Your task to perform on an android device: open app "LinkedIn" (install if not already installed) Image 0: 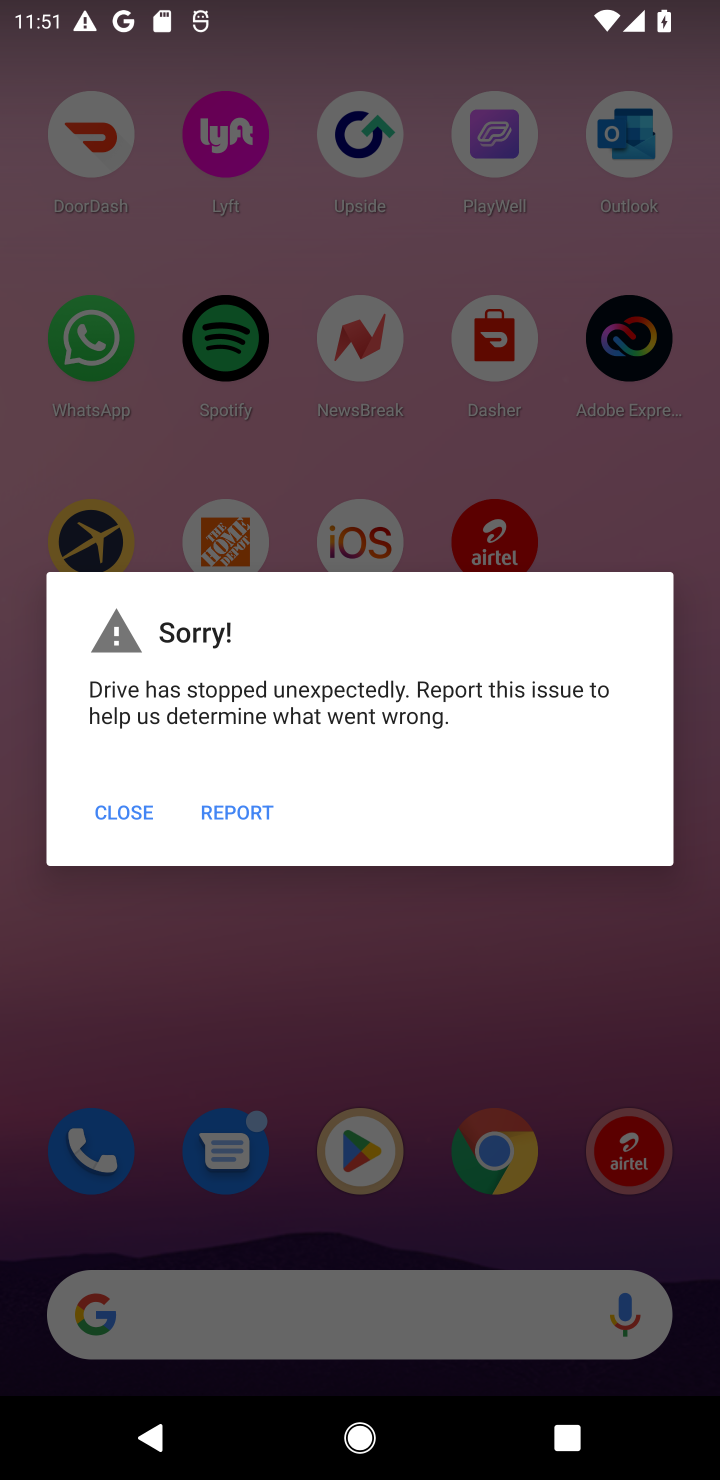
Step 0: click (94, 823)
Your task to perform on an android device: open app "LinkedIn" (install if not already installed) Image 1: 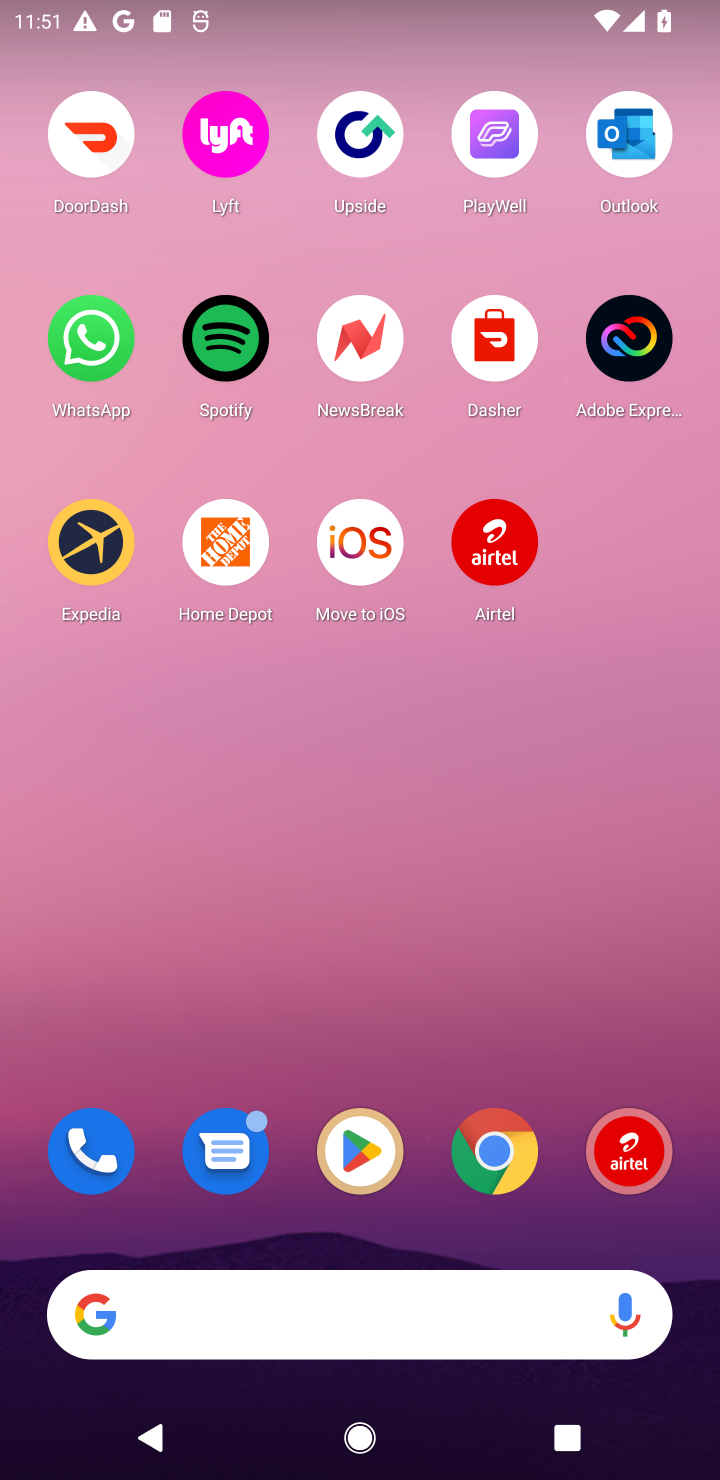
Step 1: click (366, 1145)
Your task to perform on an android device: open app "LinkedIn" (install if not already installed) Image 2: 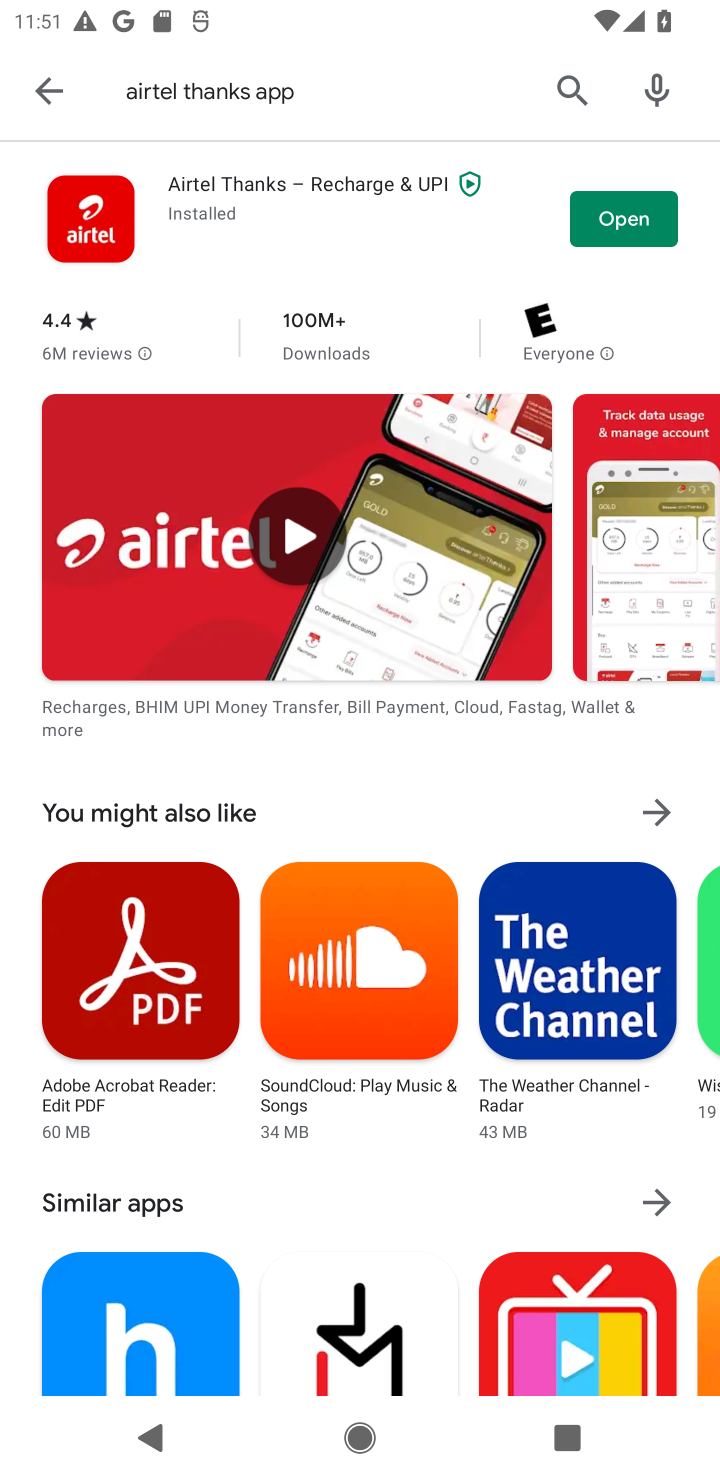
Step 2: click (578, 101)
Your task to perform on an android device: open app "LinkedIn" (install if not already installed) Image 3: 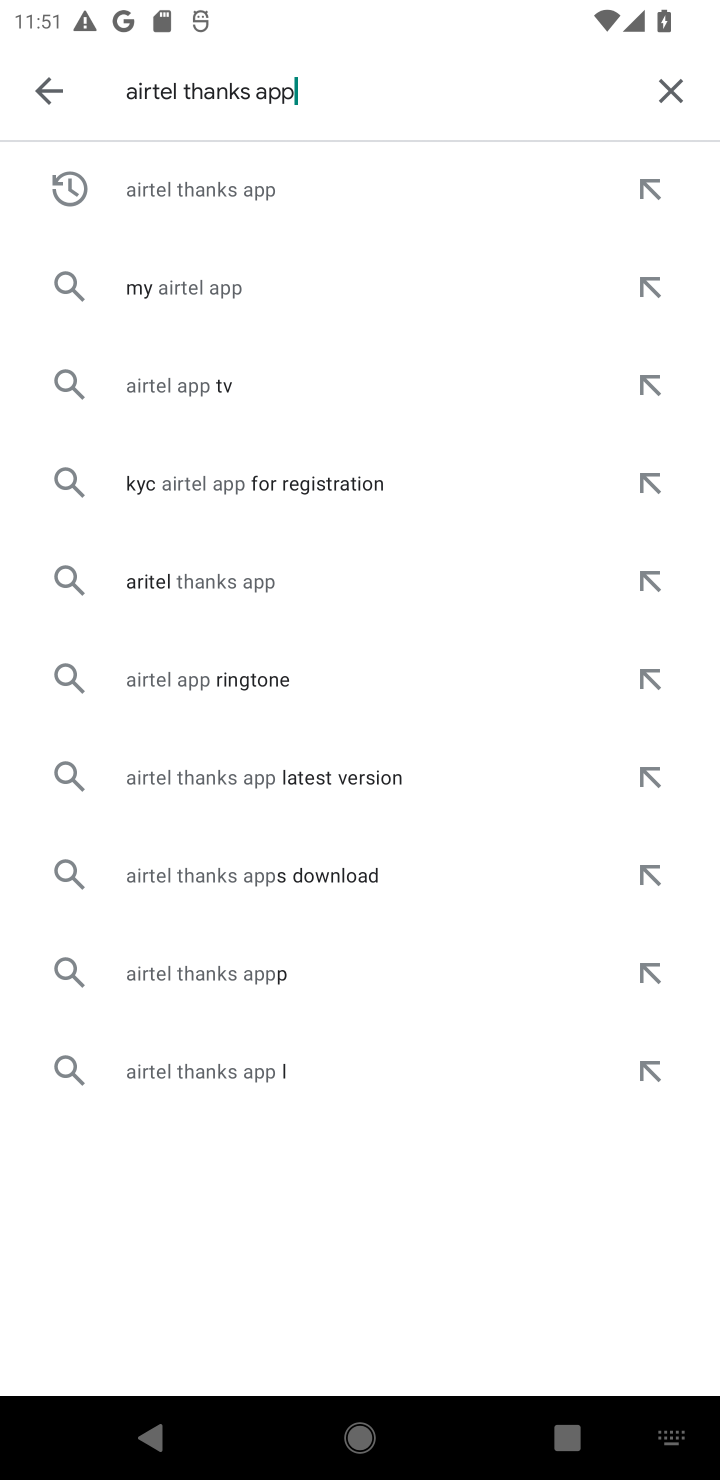
Step 3: click (676, 89)
Your task to perform on an android device: open app "LinkedIn" (install if not already installed) Image 4: 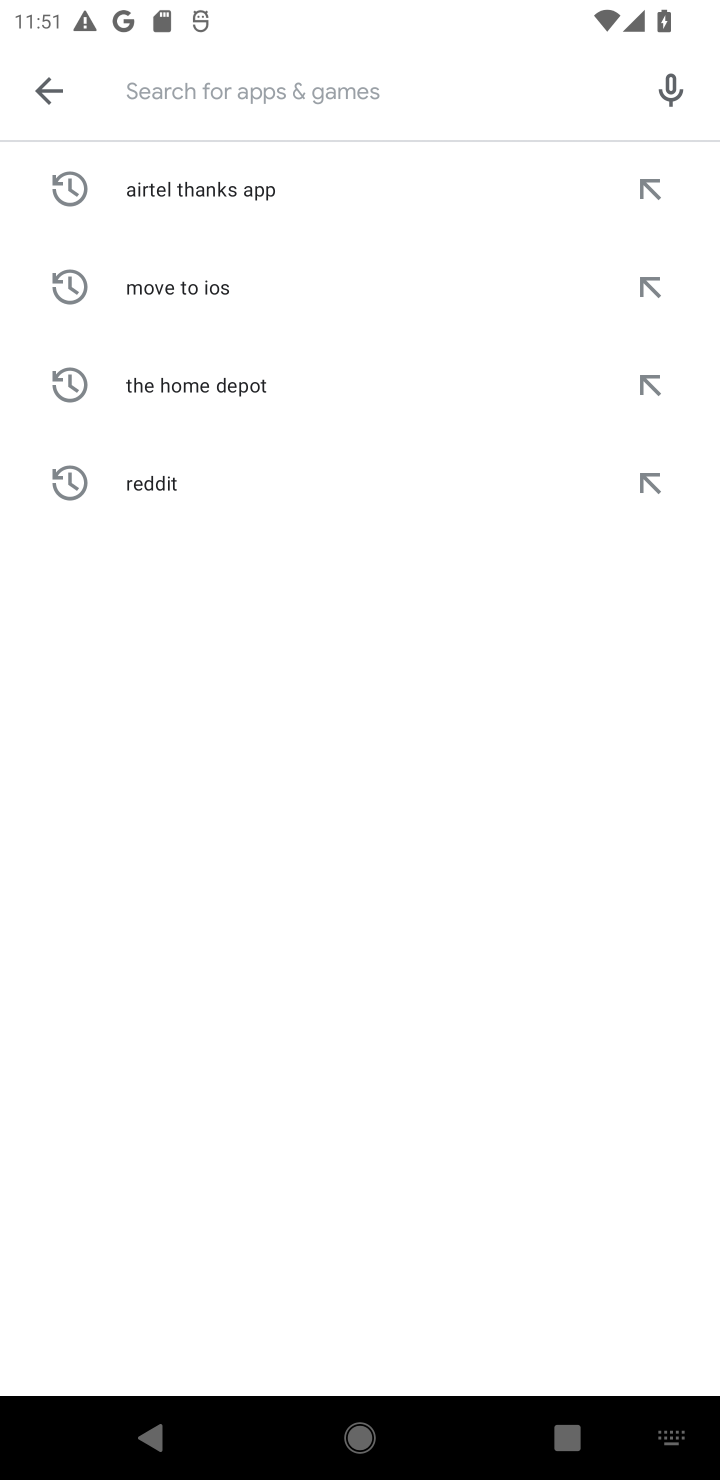
Step 4: type "LinkedIn"
Your task to perform on an android device: open app "LinkedIn" (install if not already installed) Image 5: 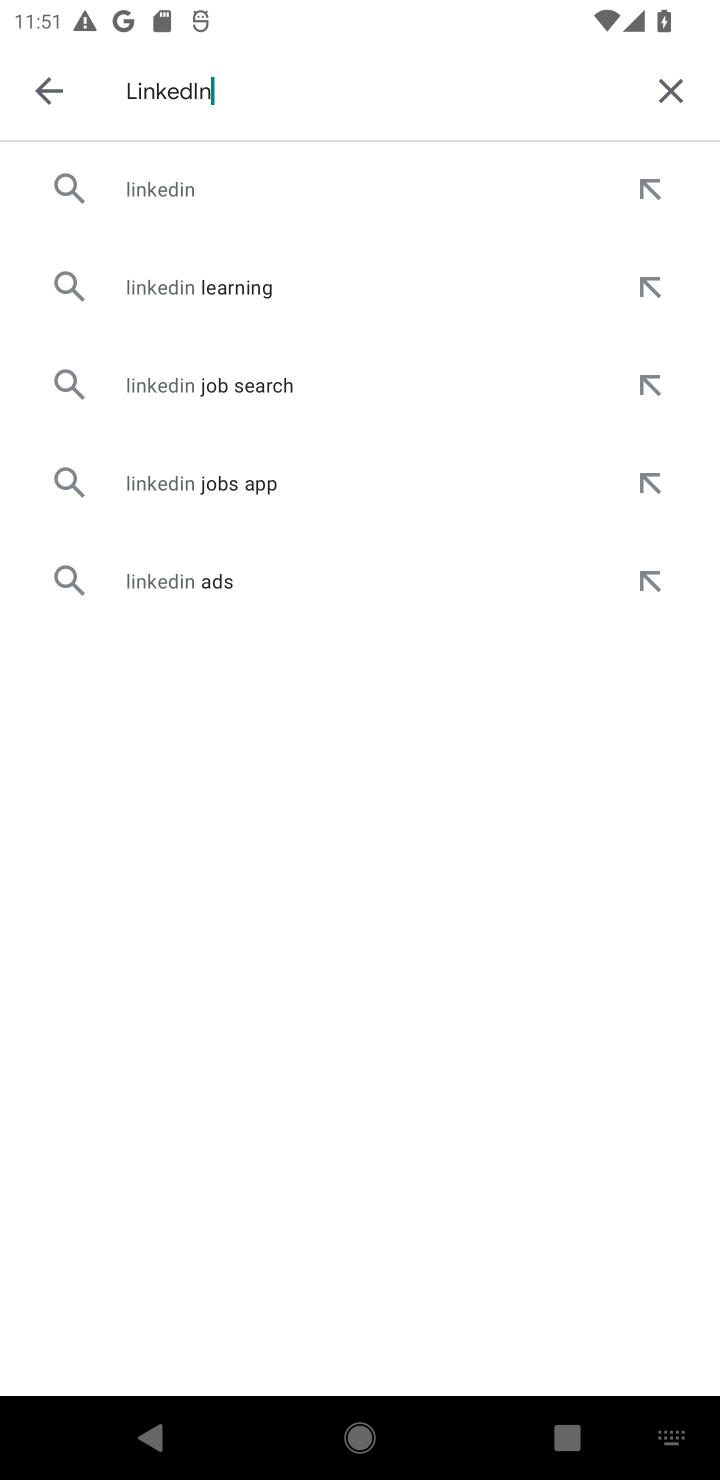
Step 5: click (218, 167)
Your task to perform on an android device: open app "LinkedIn" (install if not already installed) Image 6: 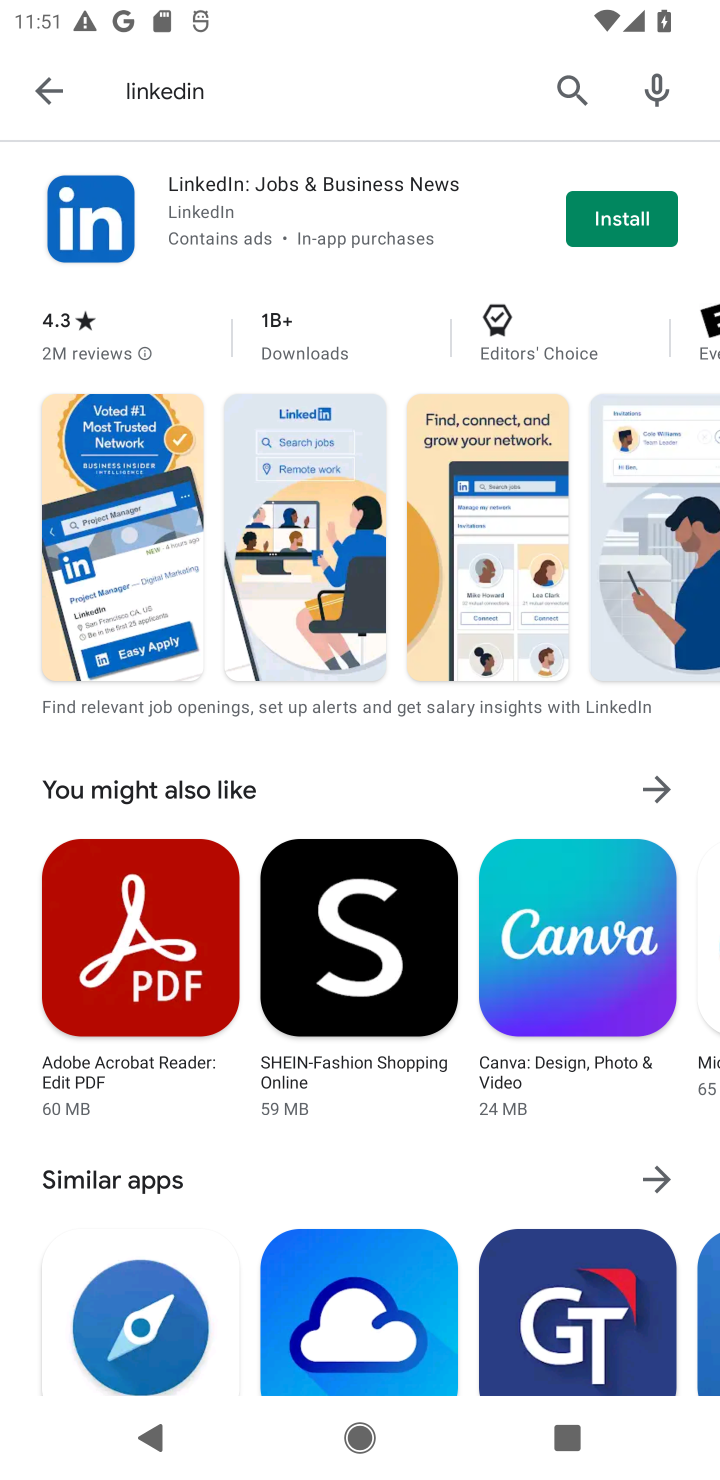
Step 6: click (581, 215)
Your task to perform on an android device: open app "LinkedIn" (install if not already installed) Image 7: 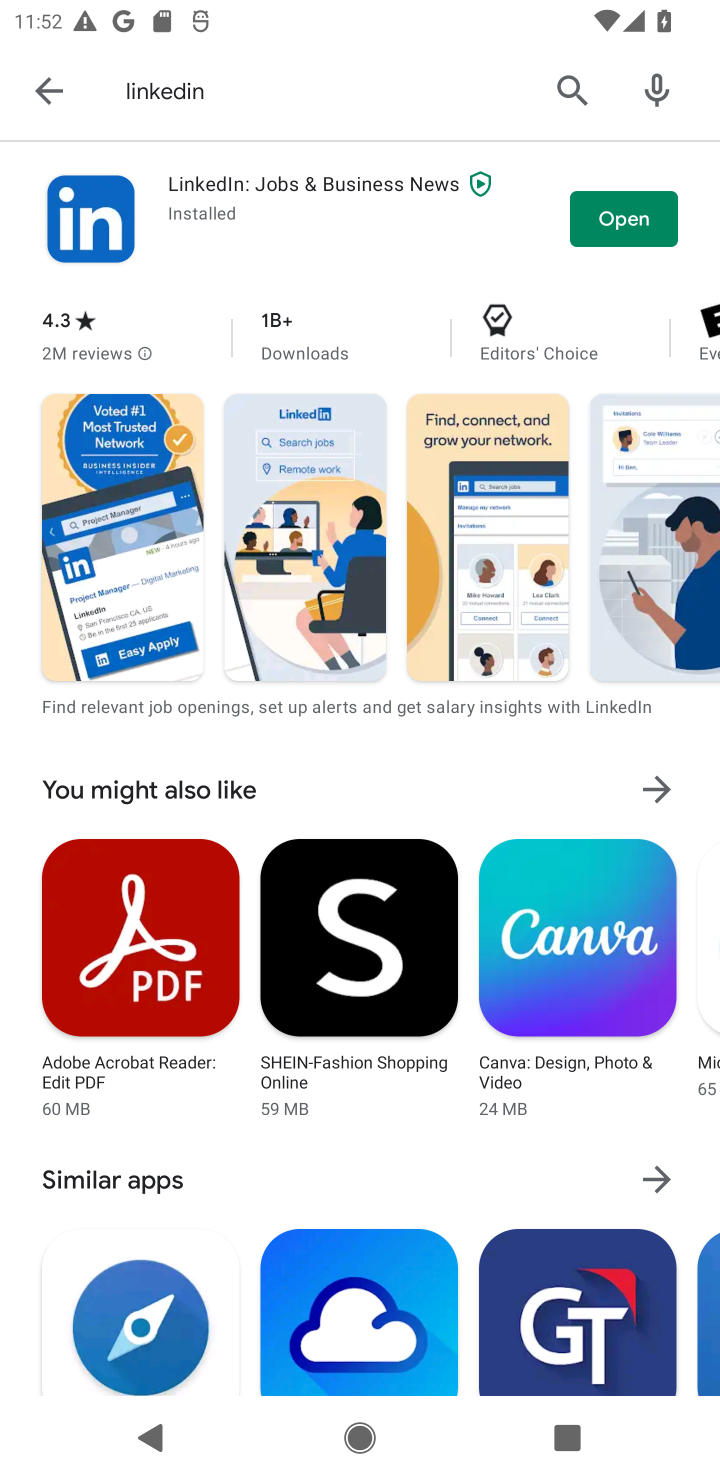
Step 7: click (581, 215)
Your task to perform on an android device: open app "LinkedIn" (install if not already installed) Image 8: 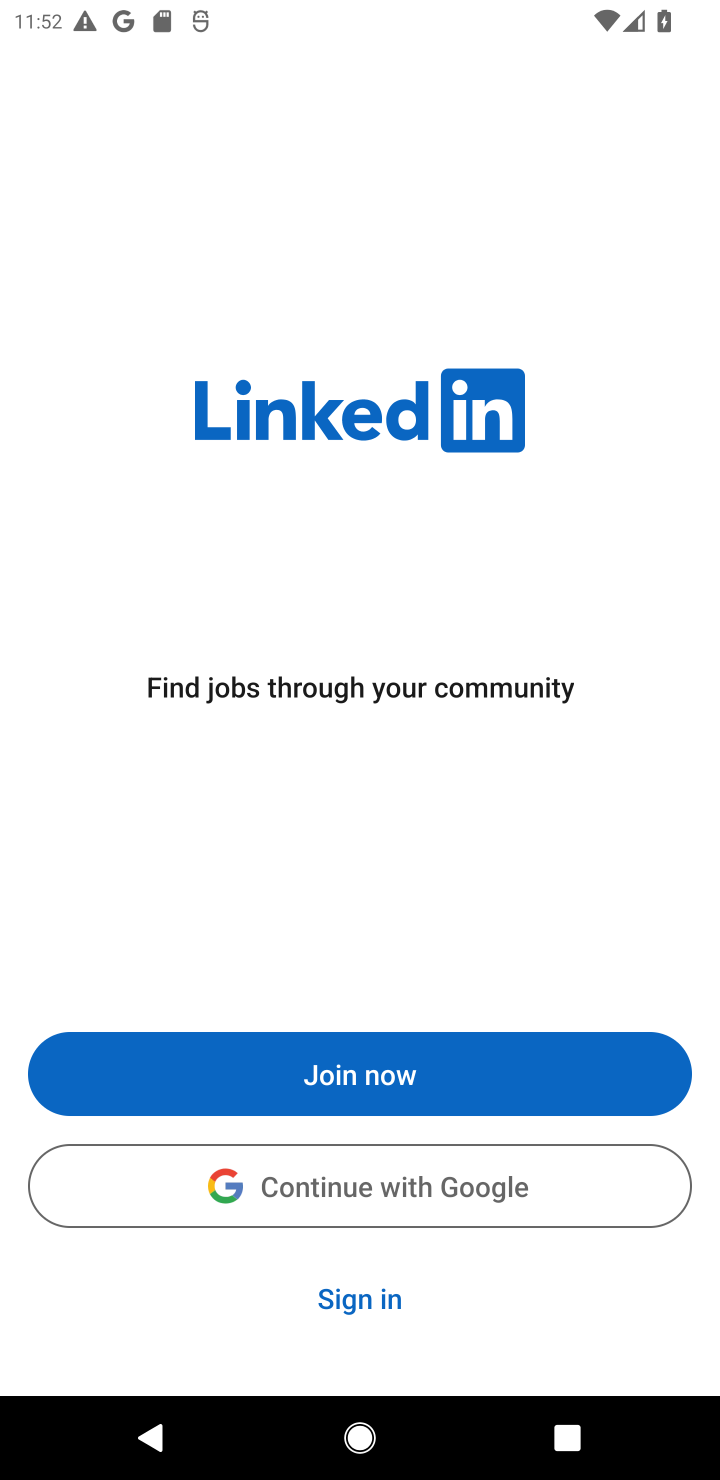
Step 8: task complete